Your task to perform on an android device: toggle show notifications on the lock screen Image 0: 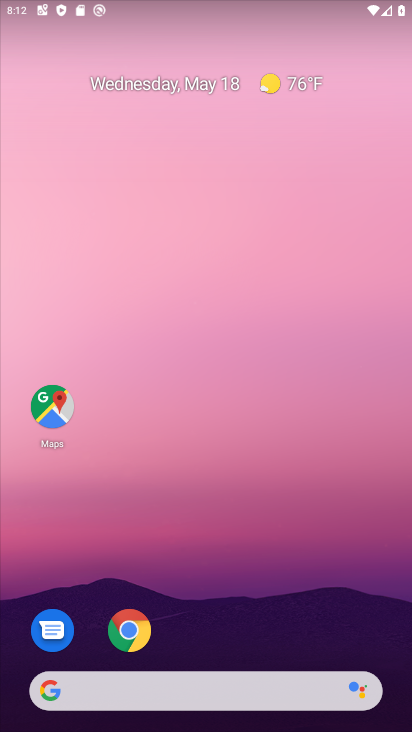
Step 0: drag from (210, 713) to (241, 3)
Your task to perform on an android device: toggle show notifications on the lock screen Image 1: 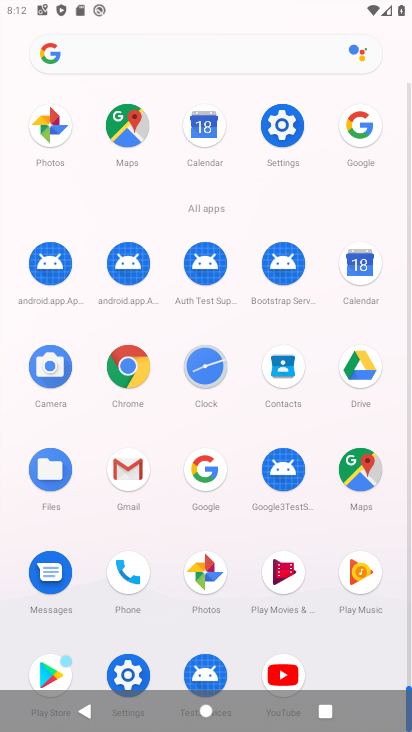
Step 1: click (275, 124)
Your task to perform on an android device: toggle show notifications on the lock screen Image 2: 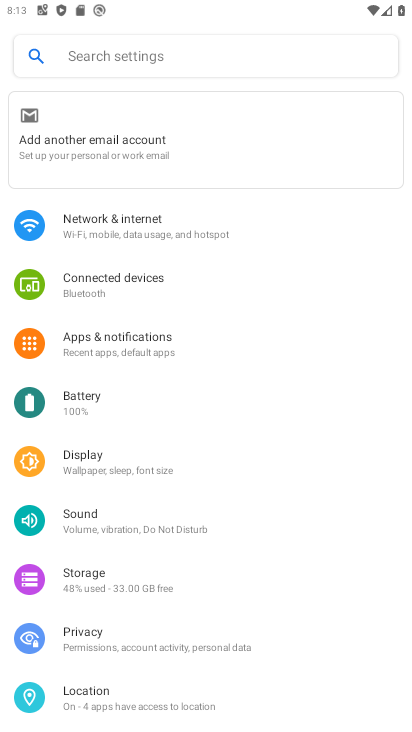
Step 2: click (149, 337)
Your task to perform on an android device: toggle show notifications on the lock screen Image 3: 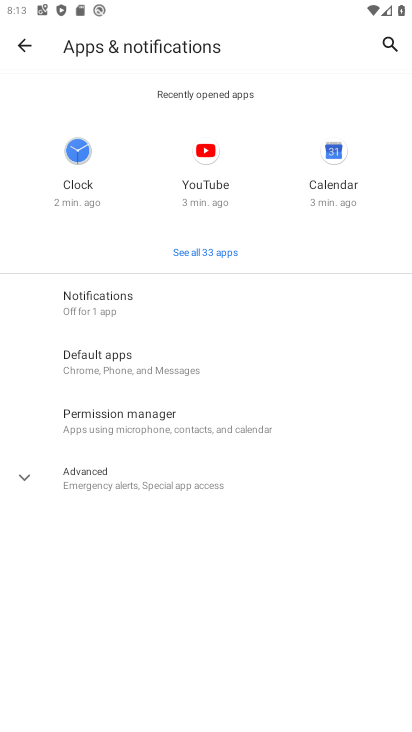
Step 3: click (189, 284)
Your task to perform on an android device: toggle show notifications on the lock screen Image 4: 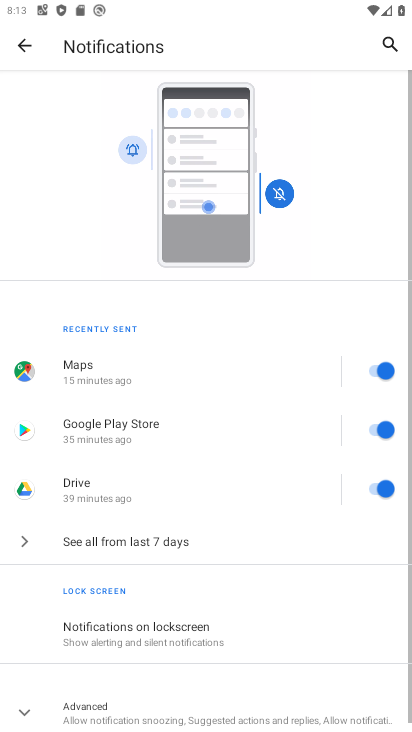
Step 4: click (238, 647)
Your task to perform on an android device: toggle show notifications on the lock screen Image 5: 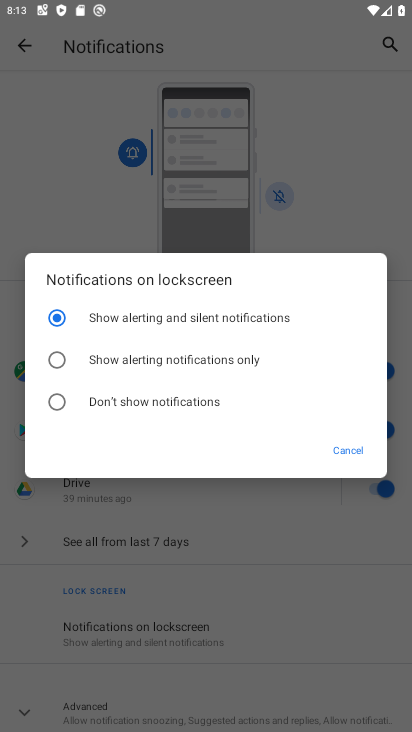
Step 5: click (181, 399)
Your task to perform on an android device: toggle show notifications on the lock screen Image 6: 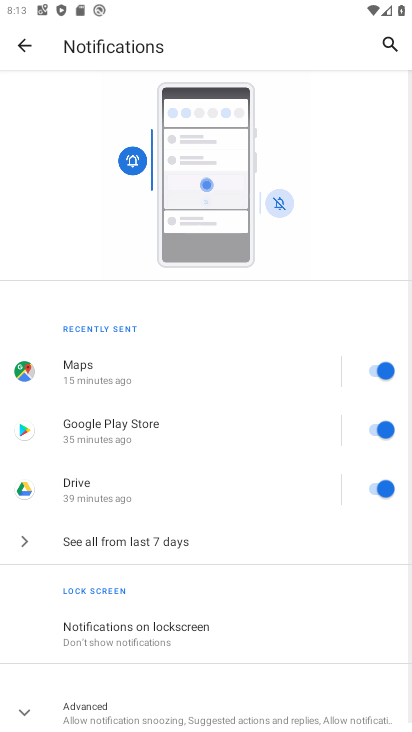
Step 6: task complete